Your task to perform on an android device: Open ESPN.com Image 0: 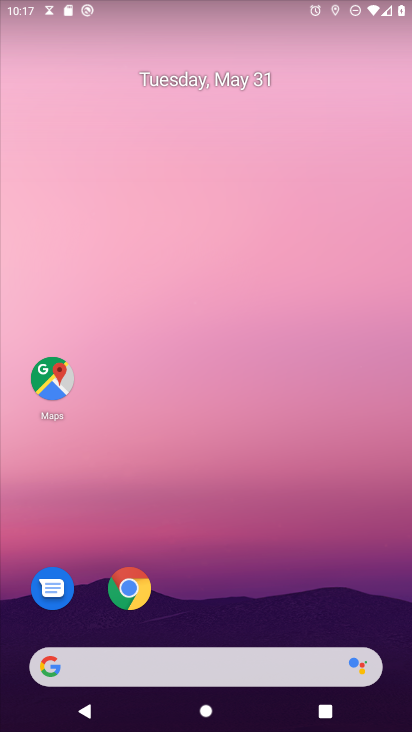
Step 0: click (129, 587)
Your task to perform on an android device: Open ESPN.com Image 1: 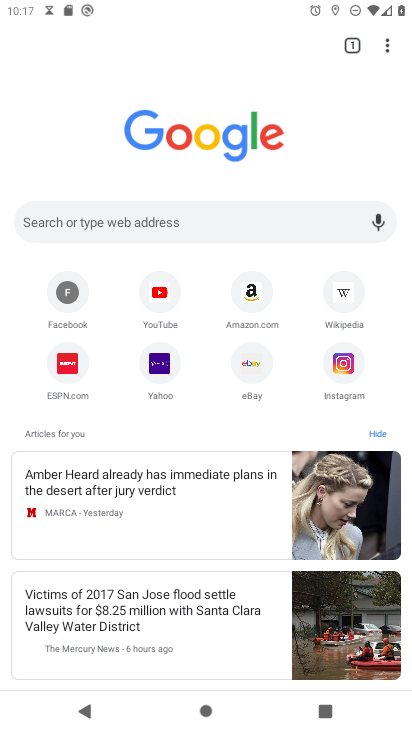
Step 1: click (178, 220)
Your task to perform on an android device: Open ESPN.com Image 2: 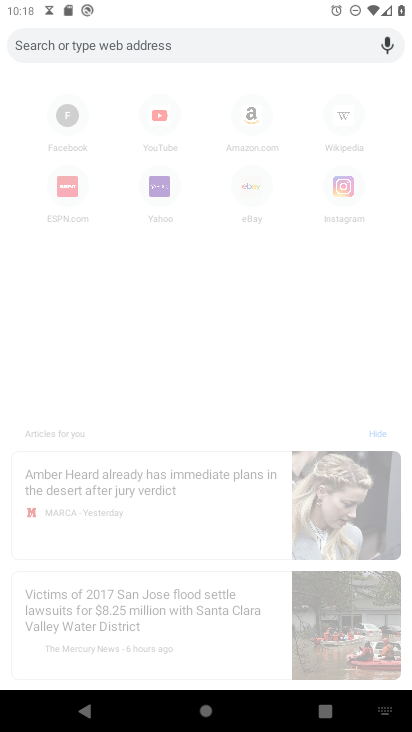
Step 2: type "ESPN.com"
Your task to perform on an android device: Open ESPN.com Image 3: 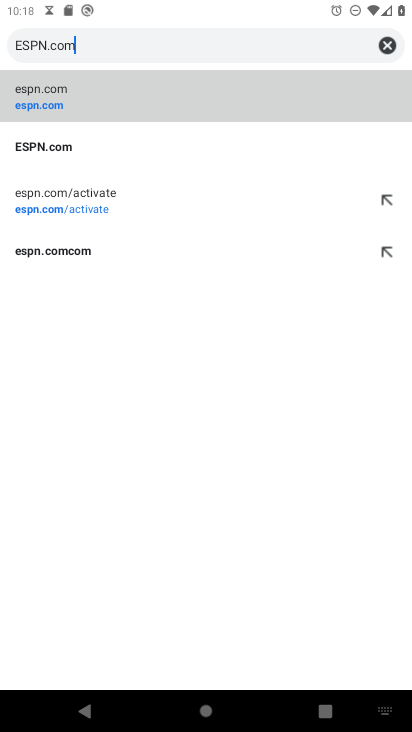
Step 3: click (58, 150)
Your task to perform on an android device: Open ESPN.com Image 4: 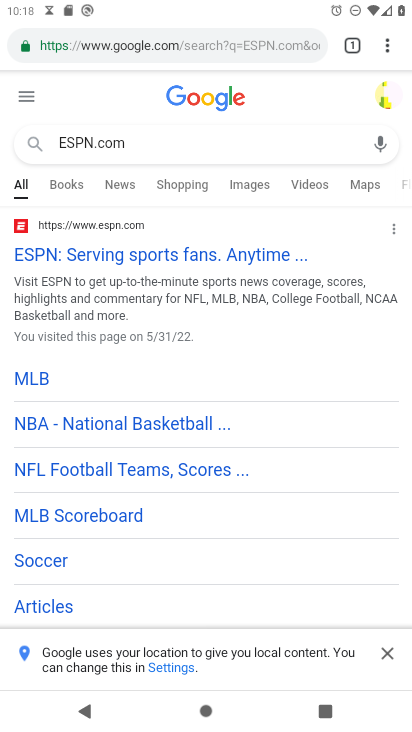
Step 4: click (183, 269)
Your task to perform on an android device: Open ESPN.com Image 5: 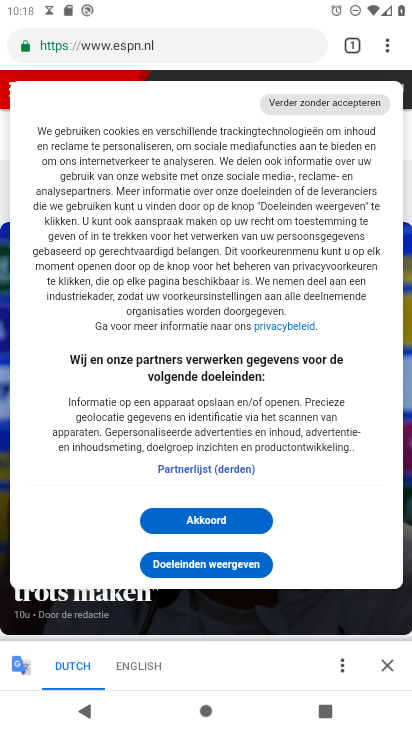
Step 5: task complete